Your task to perform on an android device: Search for pizza restaurants on Maps Image 0: 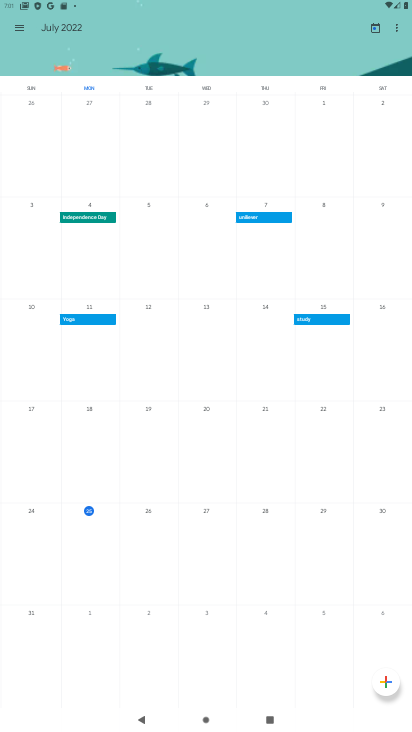
Step 0: press home button
Your task to perform on an android device: Search for pizza restaurants on Maps Image 1: 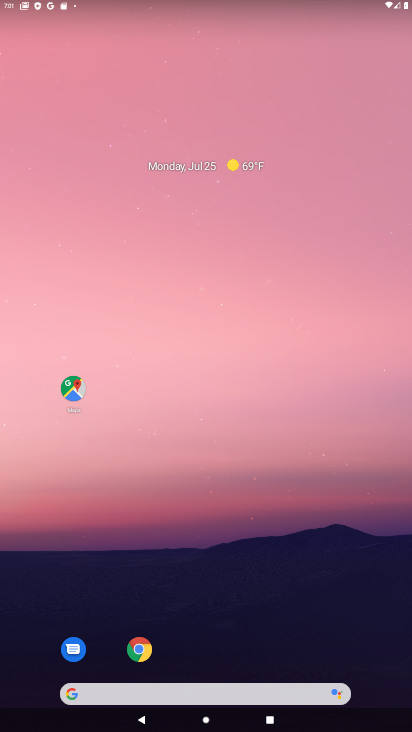
Step 1: drag from (380, 651) to (384, 265)
Your task to perform on an android device: Search for pizza restaurants on Maps Image 2: 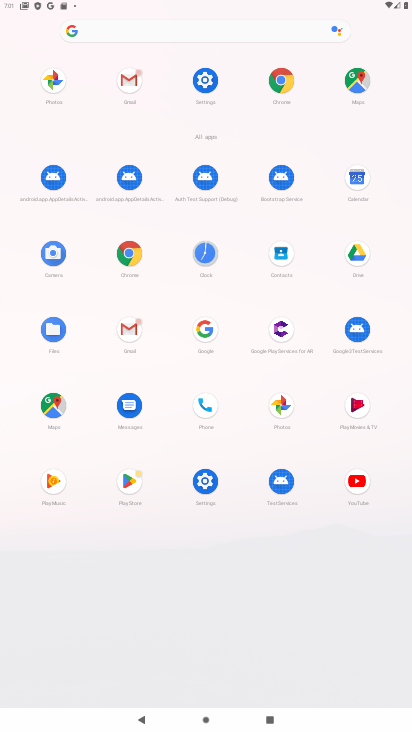
Step 2: click (63, 408)
Your task to perform on an android device: Search for pizza restaurants on Maps Image 3: 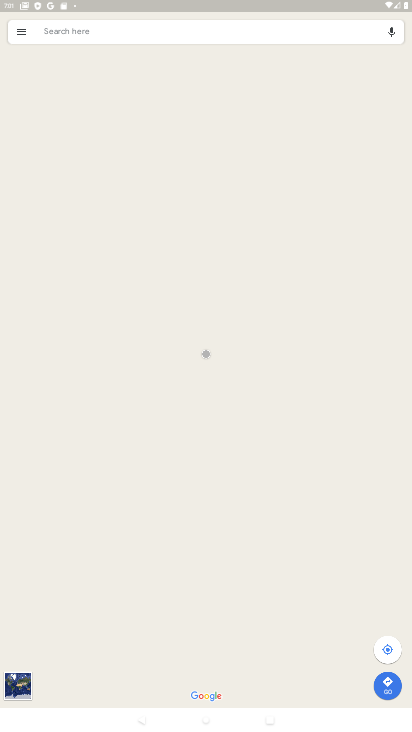
Step 3: click (137, 31)
Your task to perform on an android device: Search for pizza restaurants on Maps Image 4: 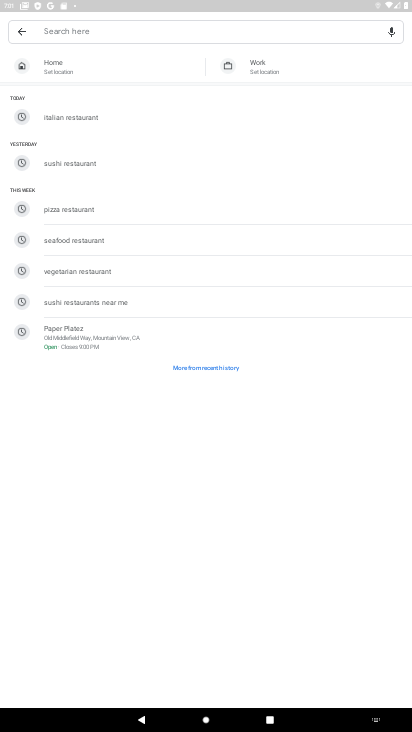
Step 4: click (84, 211)
Your task to perform on an android device: Search for pizza restaurants on Maps Image 5: 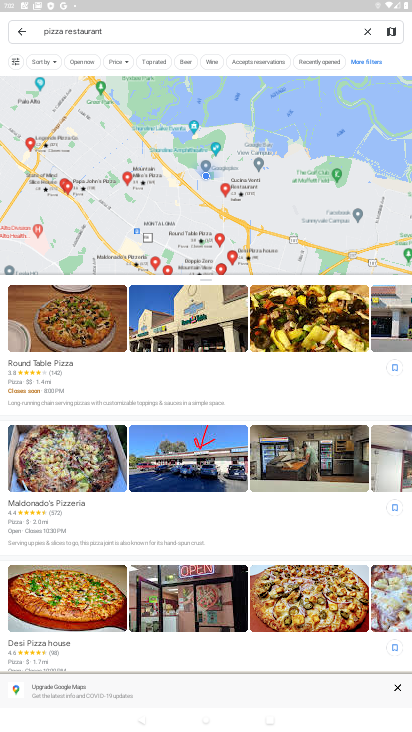
Step 5: task complete